Your task to perform on an android device: Show me the alarms in the clock app Image 0: 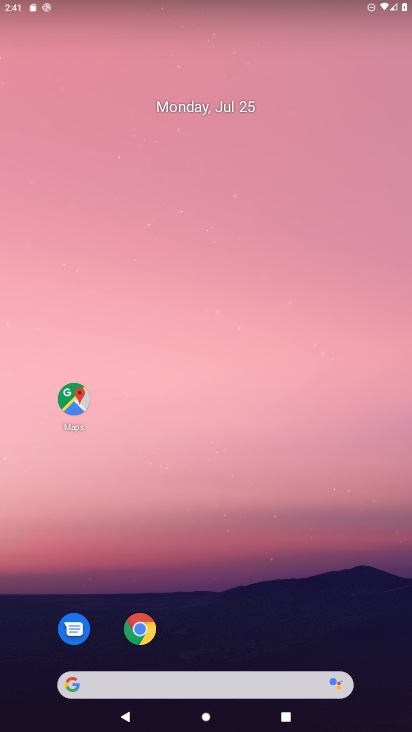
Step 0: press home button
Your task to perform on an android device: Show me the alarms in the clock app Image 1: 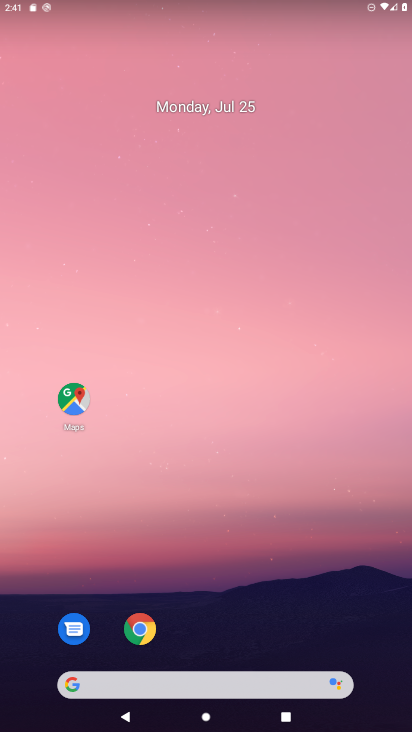
Step 1: drag from (304, 526) to (288, 20)
Your task to perform on an android device: Show me the alarms in the clock app Image 2: 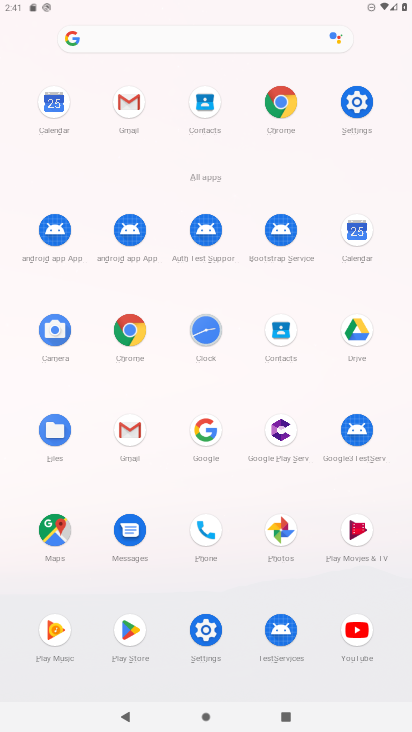
Step 2: click (196, 331)
Your task to perform on an android device: Show me the alarms in the clock app Image 3: 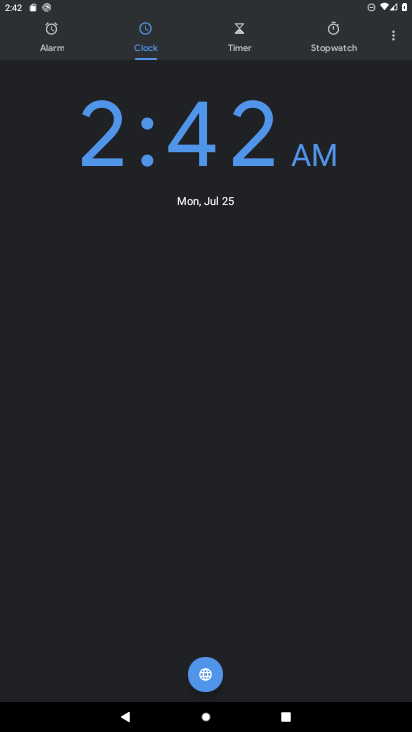
Step 3: click (46, 28)
Your task to perform on an android device: Show me the alarms in the clock app Image 4: 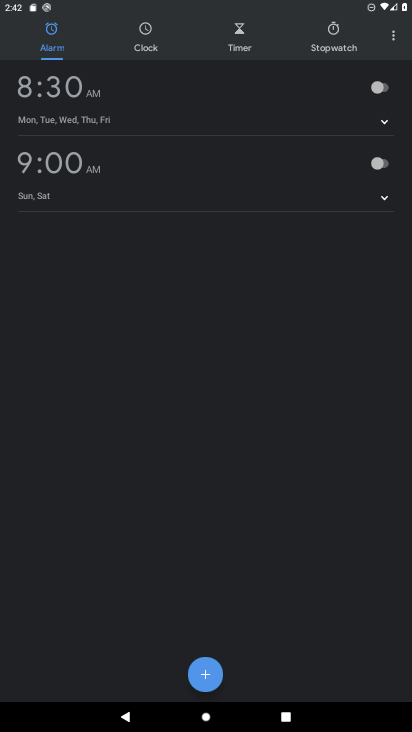
Step 4: task complete